Your task to perform on an android device: open app "Move to iOS" Image 0: 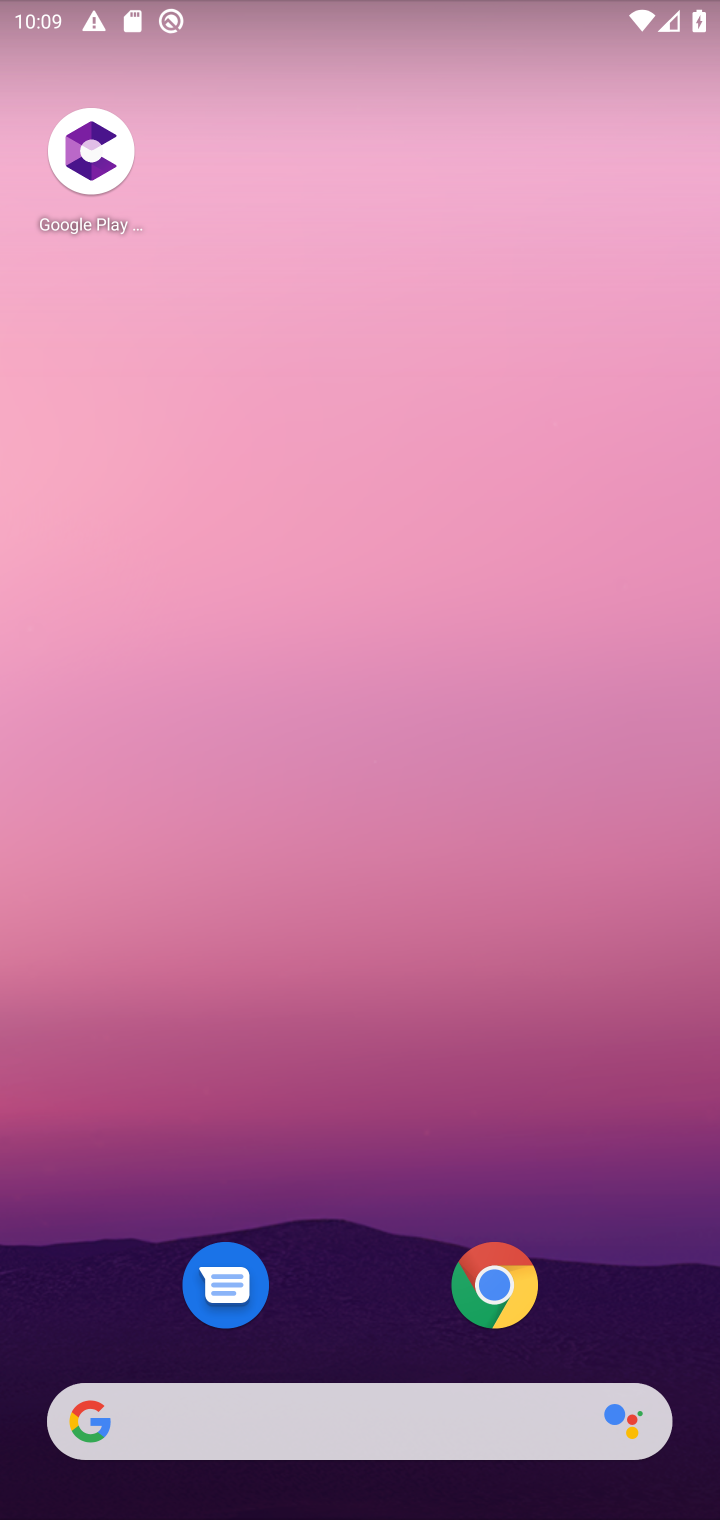
Step 0: drag from (257, 1417) to (372, 9)
Your task to perform on an android device: open app "Move to iOS" Image 1: 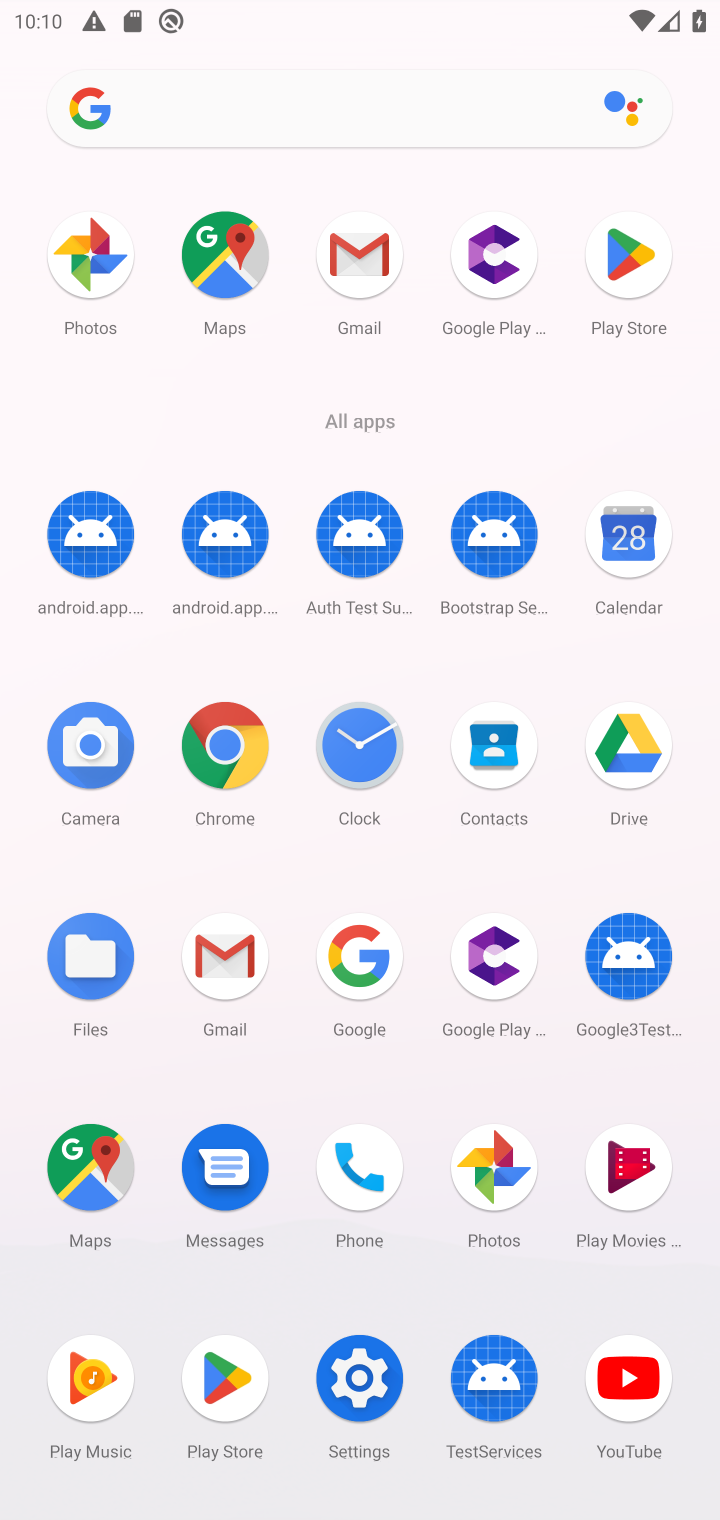
Step 1: click (229, 1372)
Your task to perform on an android device: open app "Move to iOS" Image 2: 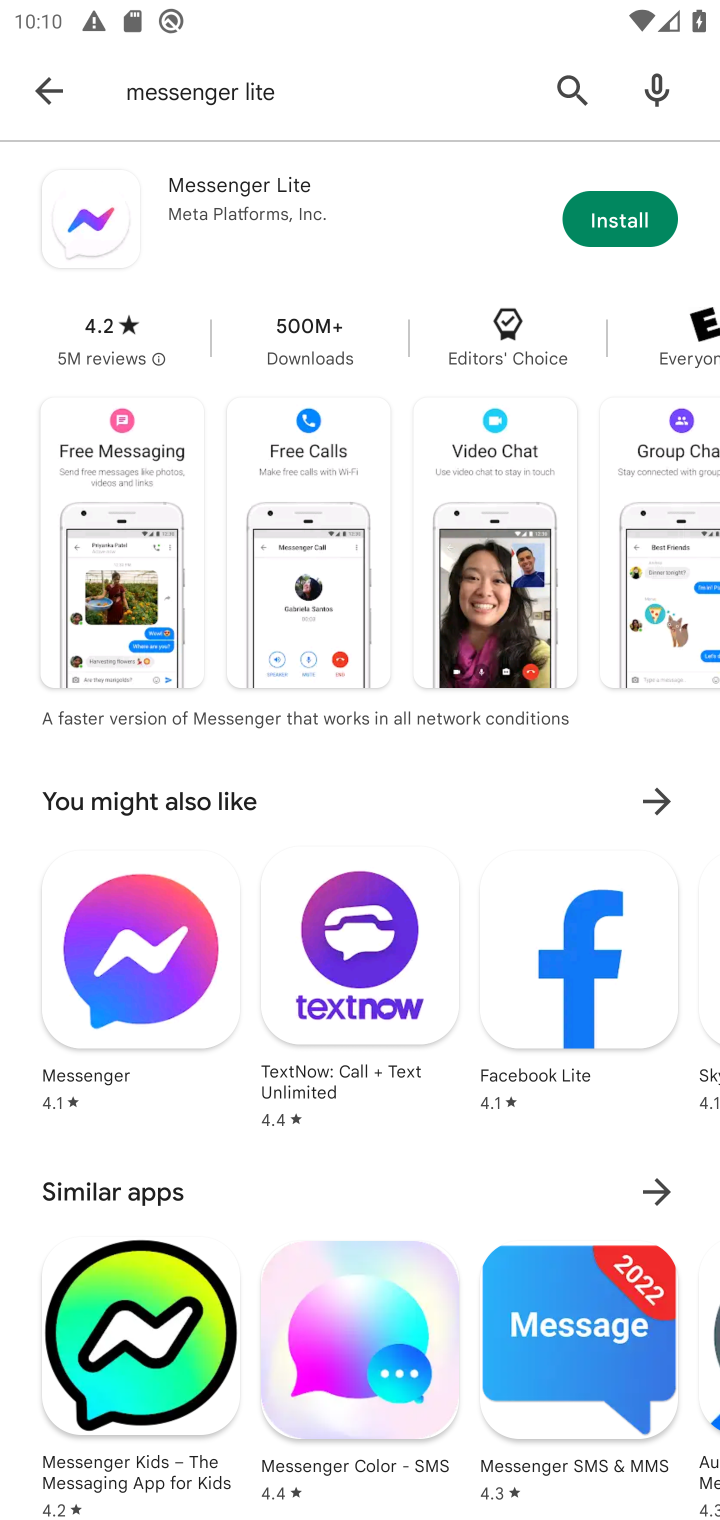
Step 2: click (560, 78)
Your task to perform on an android device: open app "Move to iOS" Image 3: 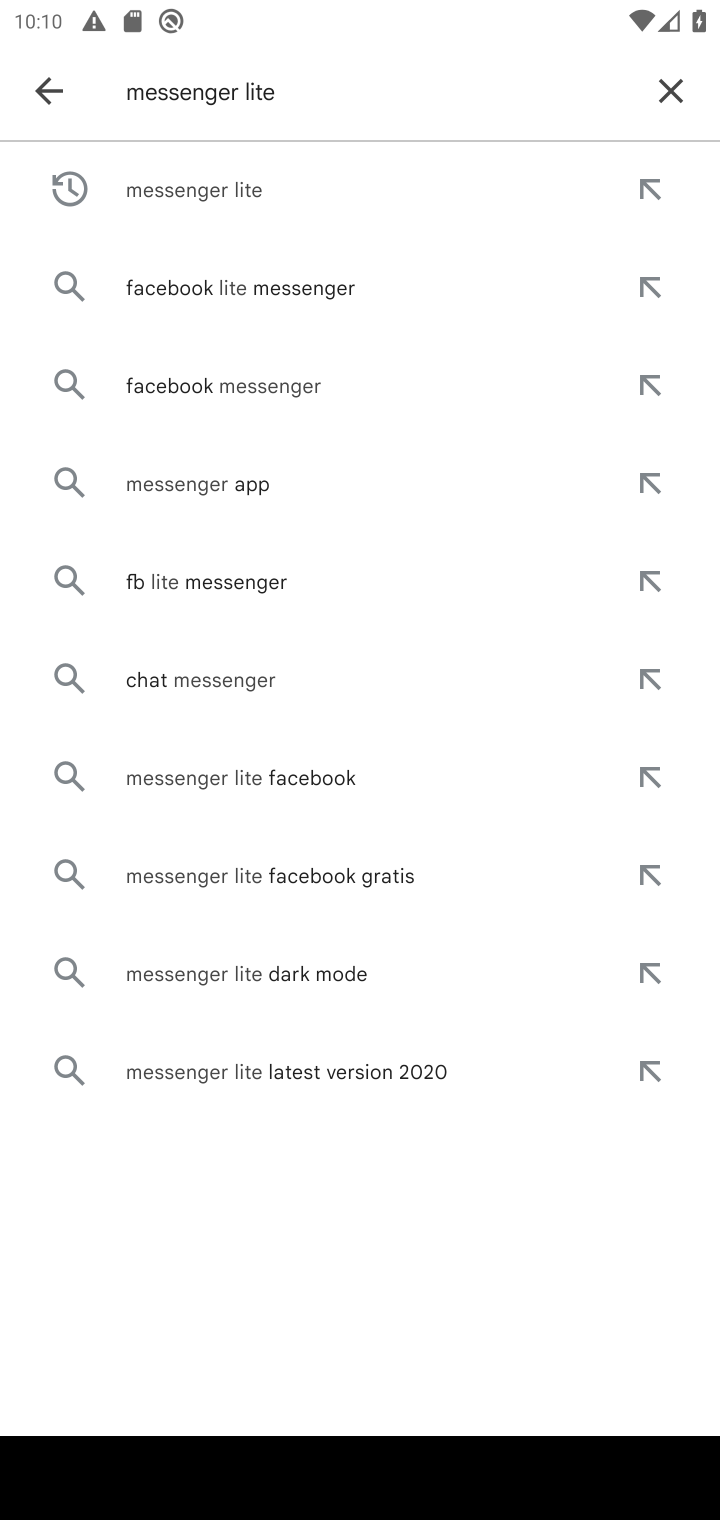
Step 3: click (678, 83)
Your task to perform on an android device: open app "Move to iOS" Image 4: 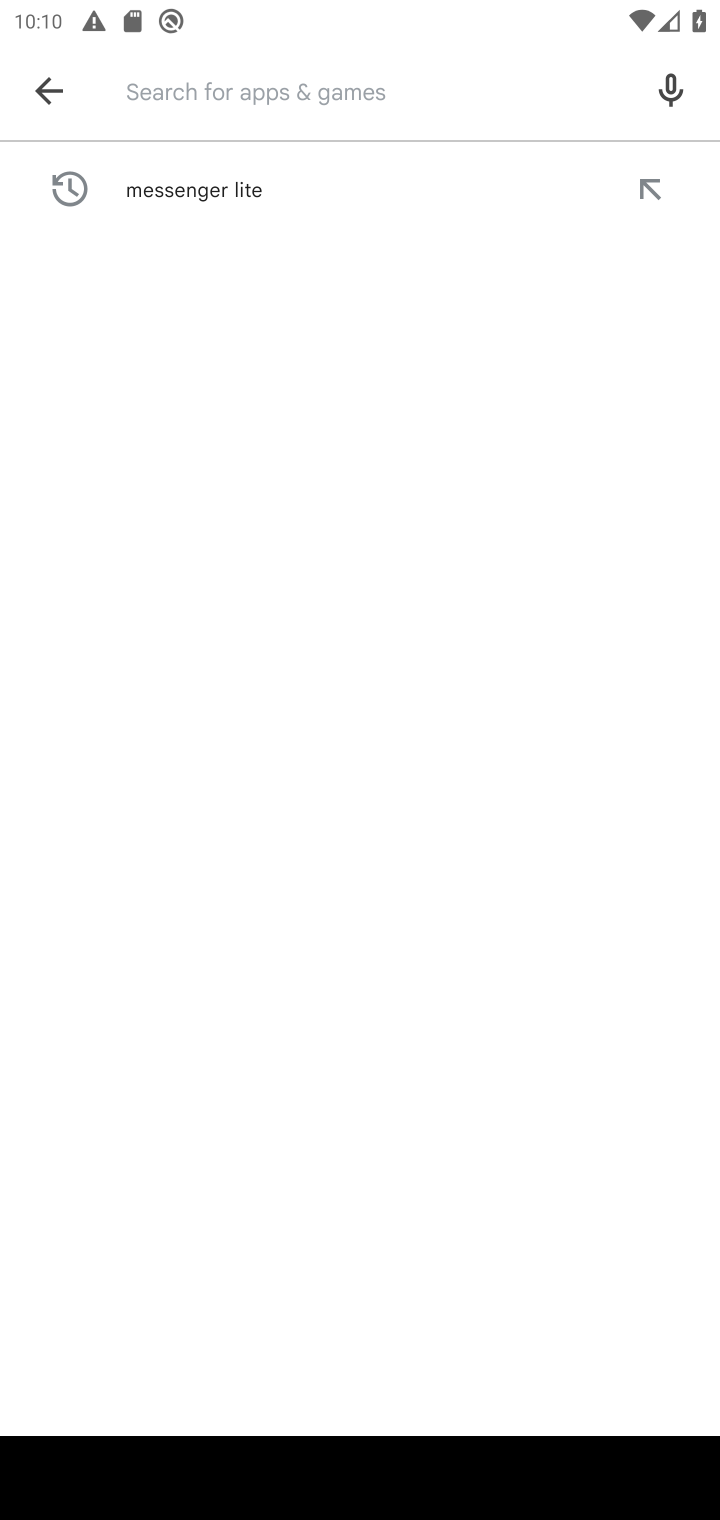
Step 4: type "Move to iOS"
Your task to perform on an android device: open app "Move to iOS" Image 5: 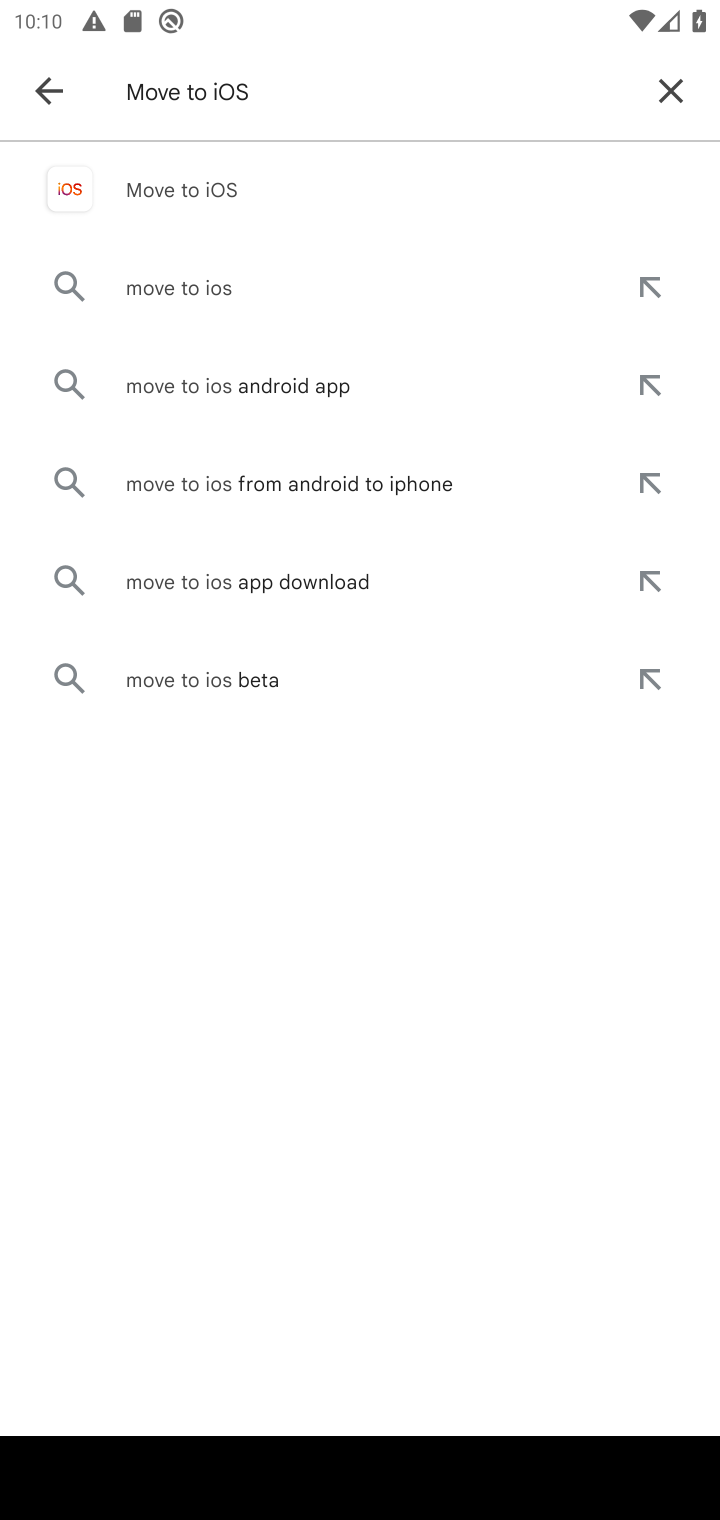
Step 5: click (188, 188)
Your task to perform on an android device: open app "Move to iOS" Image 6: 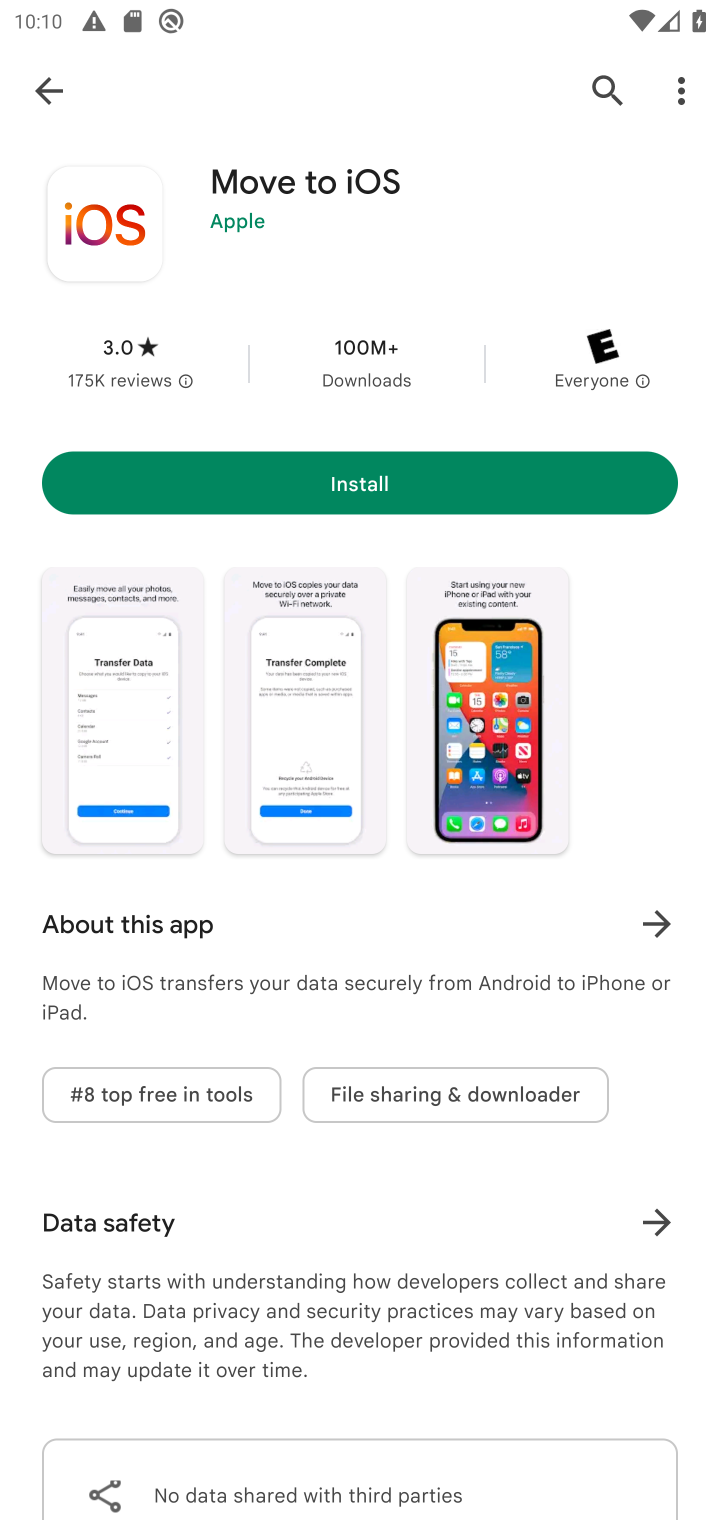
Step 6: task complete